Your task to perform on an android device: toggle translation in the chrome app Image 0: 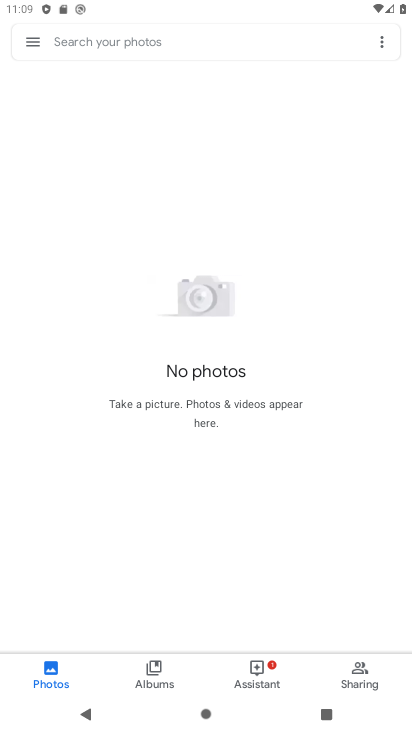
Step 0: press home button
Your task to perform on an android device: toggle translation in the chrome app Image 1: 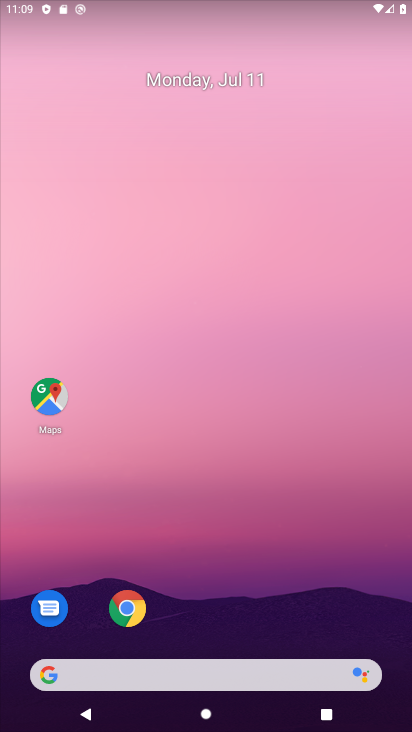
Step 1: click (135, 607)
Your task to perform on an android device: toggle translation in the chrome app Image 2: 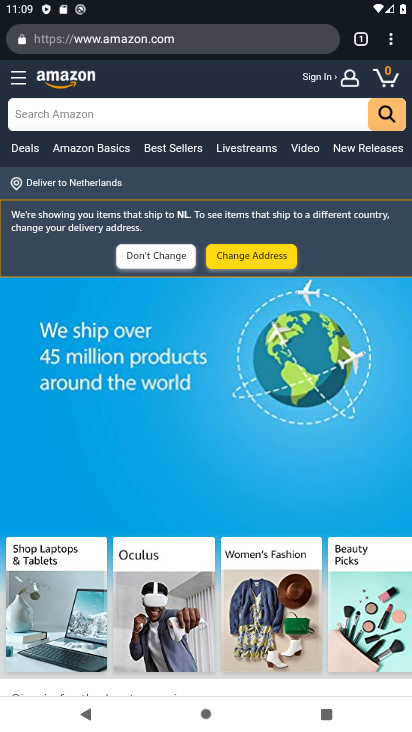
Step 2: click (390, 47)
Your task to perform on an android device: toggle translation in the chrome app Image 3: 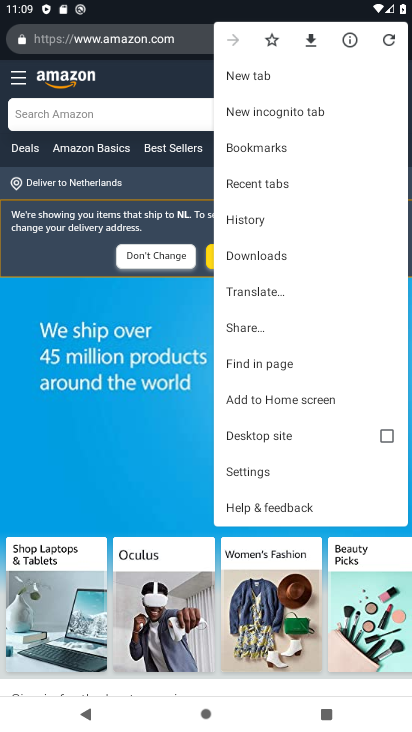
Step 3: click (241, 471)
Your task to perform on an android device: toggle translation in the chrome app Image 4: 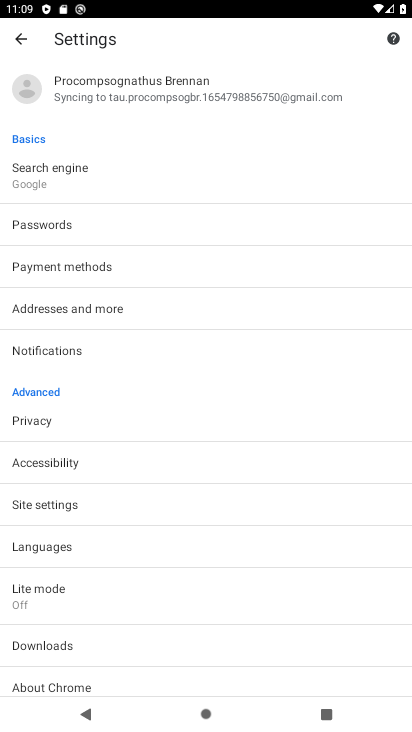
Step 4: click (107, 545)
Your task to perform on an android device: toggle translation in the chrome app Image 5: 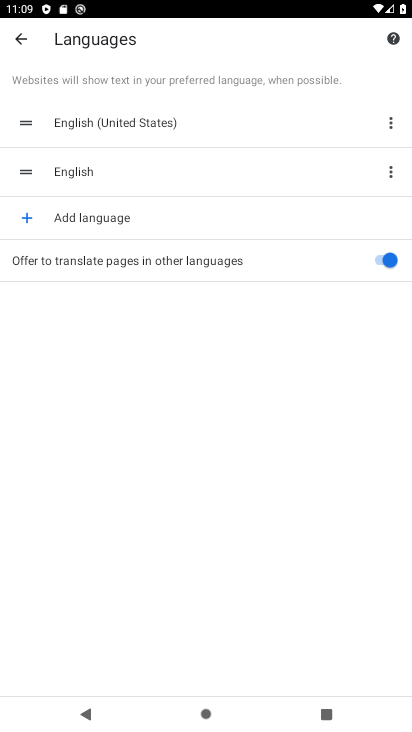
Step 5: click (385, 262)
Your task to perform on an android device: toggle translation in the chrome app Image 6: 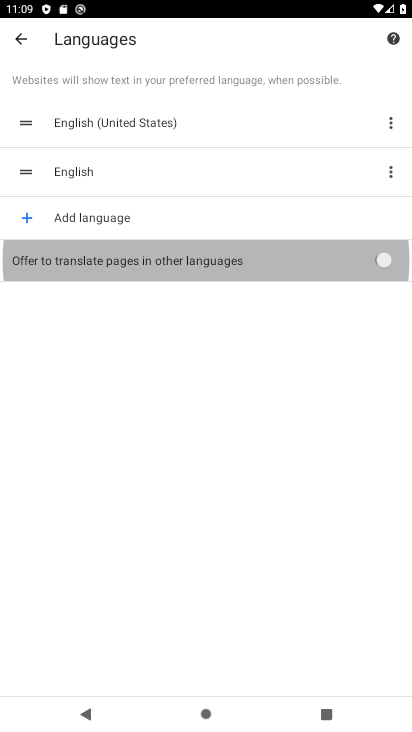
Step 6: click (385, 262)
Your task to perform on an android device: toggle translation in the chrome app Image 7: 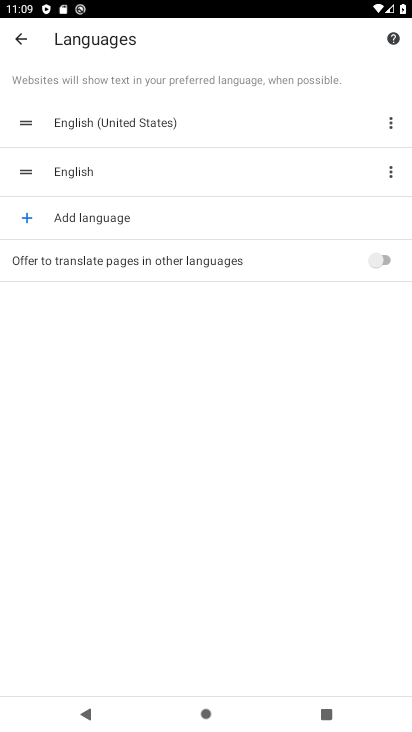
Step 7: click (385, 262)
Your task to perform on an android device: toggle translation in the chrome app Image 8: 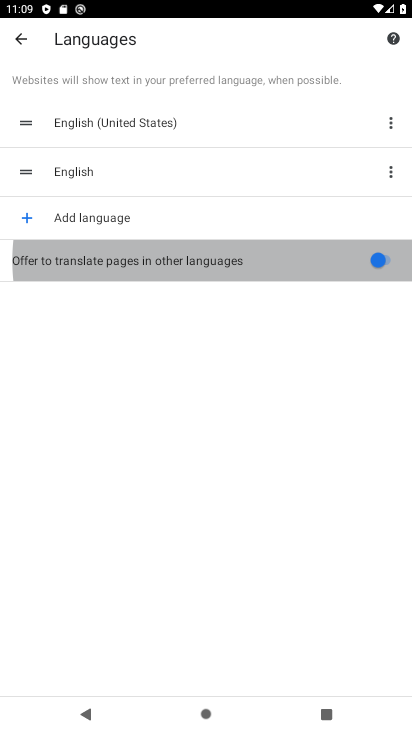
Step 8: click (385, 262)
Your task to perform on an android device: toggle translation in the chrome app Image 9: 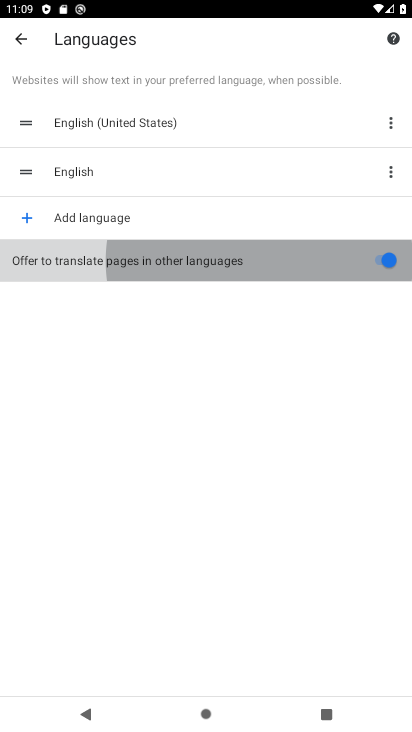
Step 9: click (385, 262)
Your task to perform on an android device: toggle translation in the chrome app Image 10: 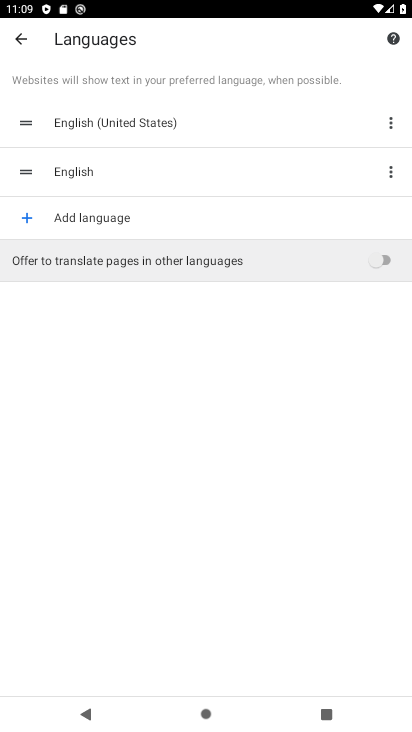
Step 10: click (385, 262)
Your task to perform on an android device: toggle translation in the chrome app Image 11: 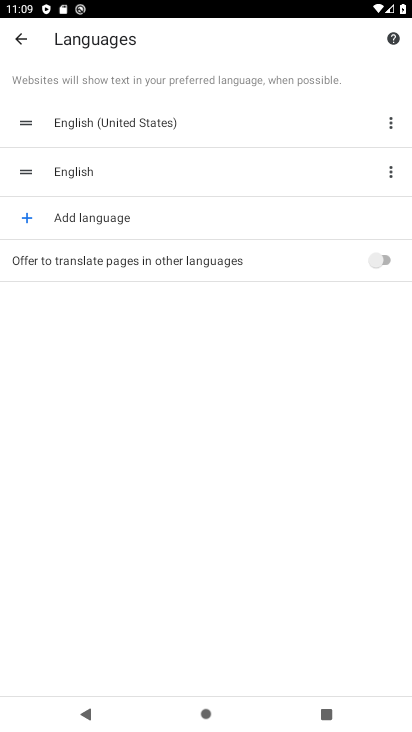
Step 11: click (385, 262)
Your task to perform on an android device: toggle translation in the chrome app Image 12: 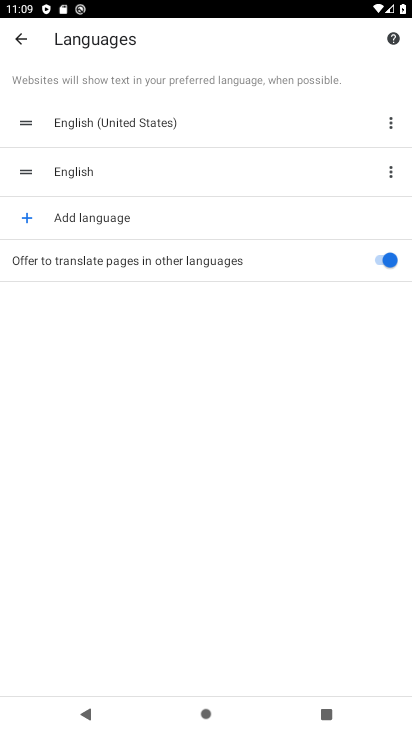
Step 12: task complete